Your task to perform on an android device: Open the map Image 0: 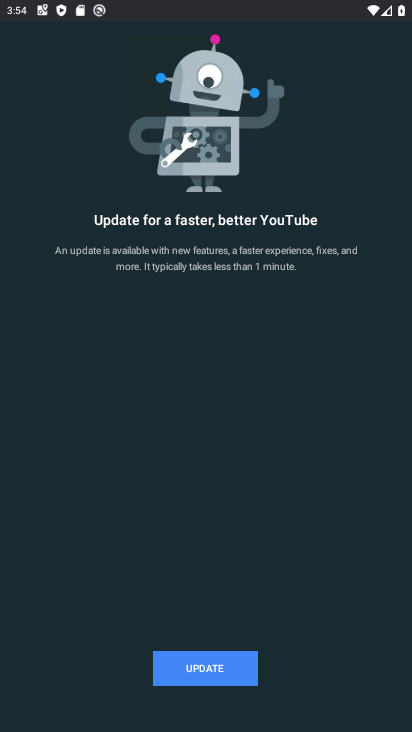
Step 0: press home button
Your task to perform on an android device: Open the map Image 1: 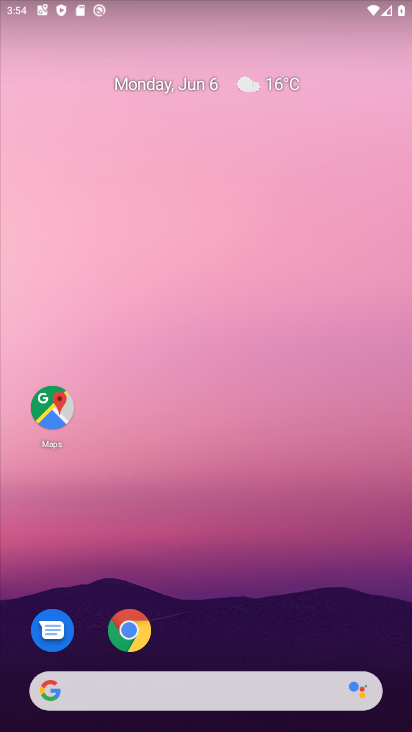
Step 1: click (57, 406)
Your task to perform on an android device: Open the map Image 2: 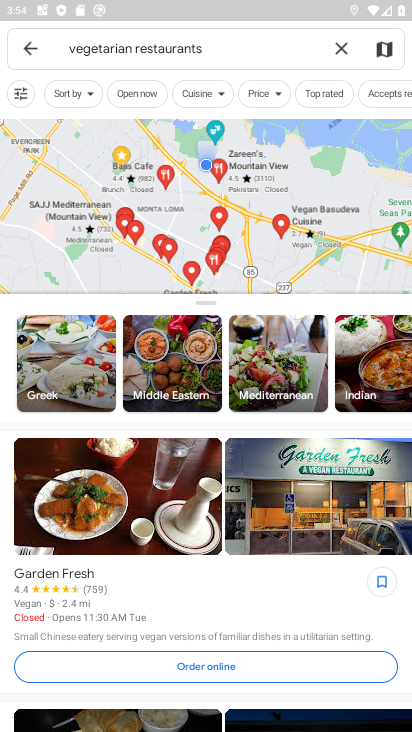
Step 2: task complete